Your task to perform on an android device: open app "TextNow: Call + Text Unlimited" (install if not already installed) and enter user name: "stoke@yahoo.com" and password: "prompted" Image 0: 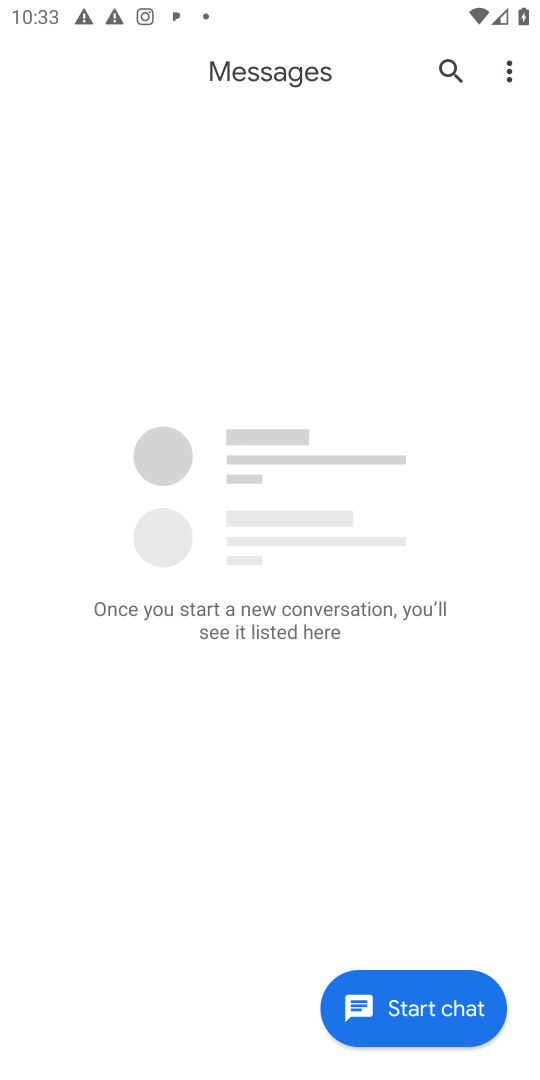
Step 0: press home button
Your task to perform on an android device: open app "TextNow: Call + Text Unlimited" (install if not already installed) and enter user name: "stoke@yahoo.com" and password: "prompted" Image 1: 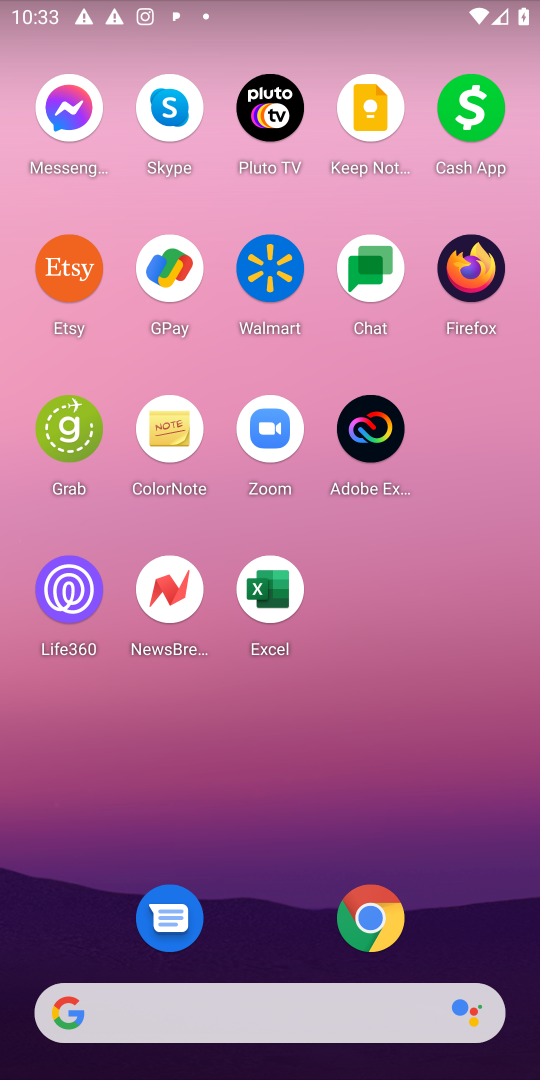
Step 1: press home button
Your task to perform on an android device: open app "TextNow: Call + Text Unlimited" (install if not already installed) and enter user name: "stoke@yahoo.com" and password: "prompted" Image 2: 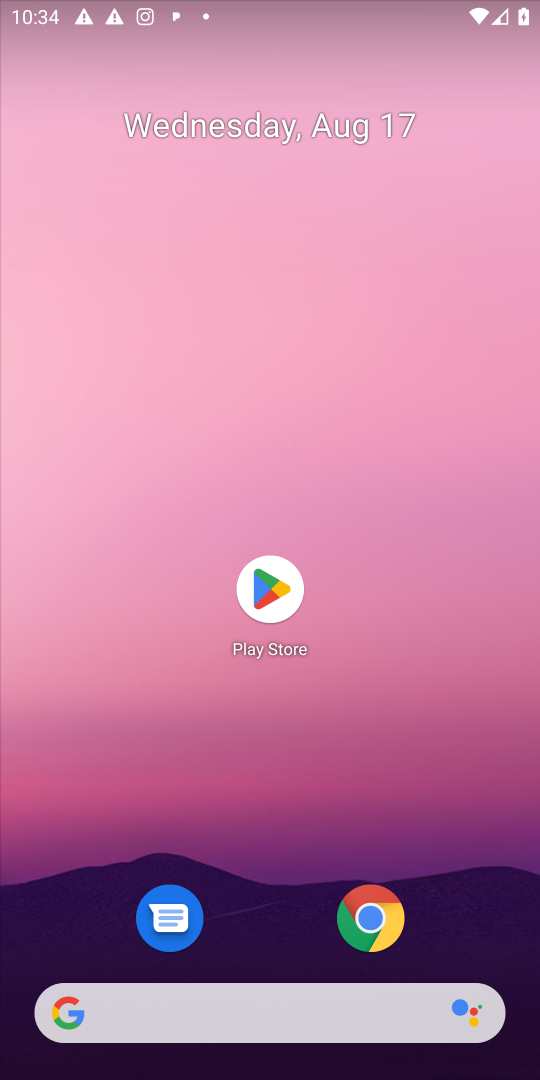
Step 2: click (259, 603)
Your task to perform on an android device: open app "TextNow: Call + Text Unlimited" (install if not already installed) and enter user name: "stoke@yahoo.com" and password: "prompted" Image 3: 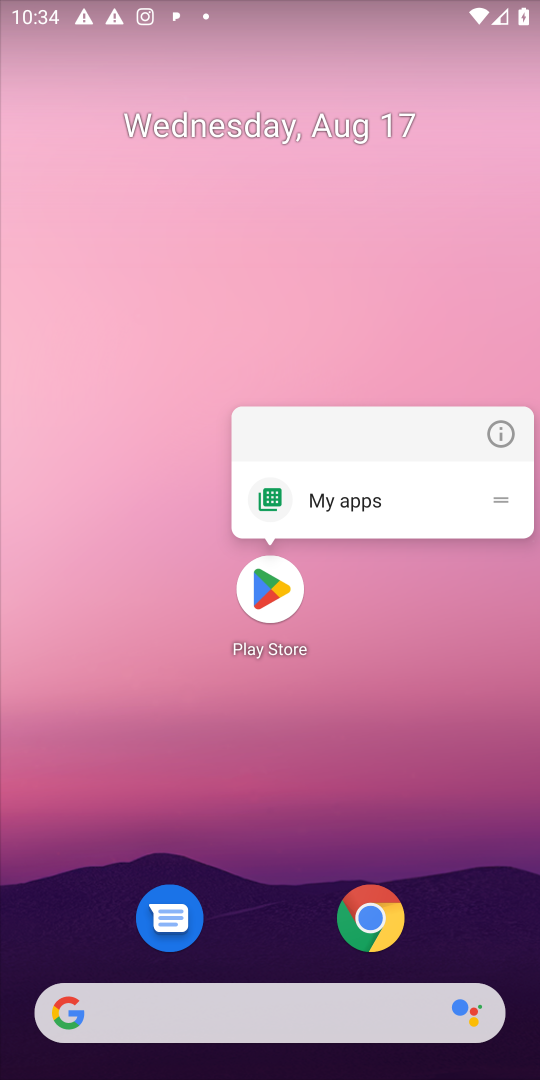
Step 3: click (259, 605)
Your task to perform on an android device: open app "TextNow: Call + Text Unlimited" (install if not already installed) and enter user name: "stoke@yahoo.com" and password: "prompted" Image 4: 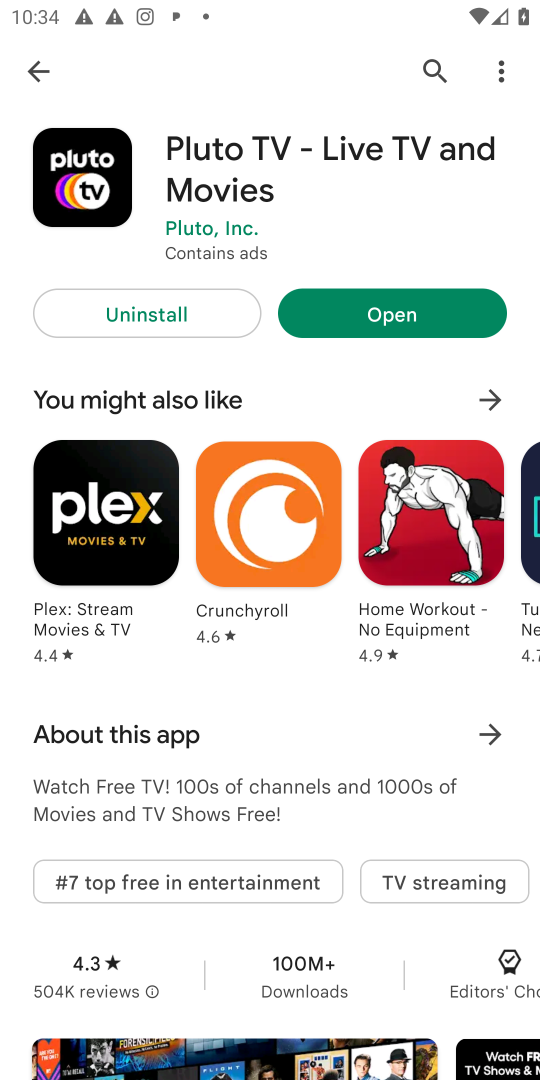
Step 4: click (424, 61)
Your task to perform on an android device: open app "TextNow: Call + Text Unlimited" (install if not already installed) and enter user name: "stoke@yahoo.com" and password: "prompted" Image 5: 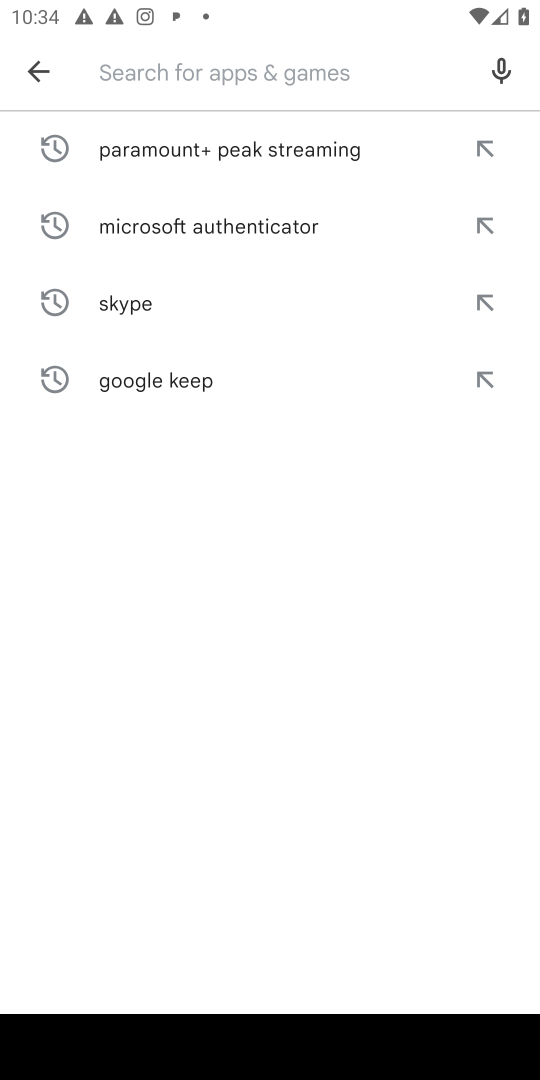
Step 5: type "TextNow: Call + Text Unlimited"
Your task to perform on an android device: open app "TextNow: Call + Text Unlimited" (install if not already installed) and enter user name: "stoke@yahoo.com" and password: "prompted" Image 6: 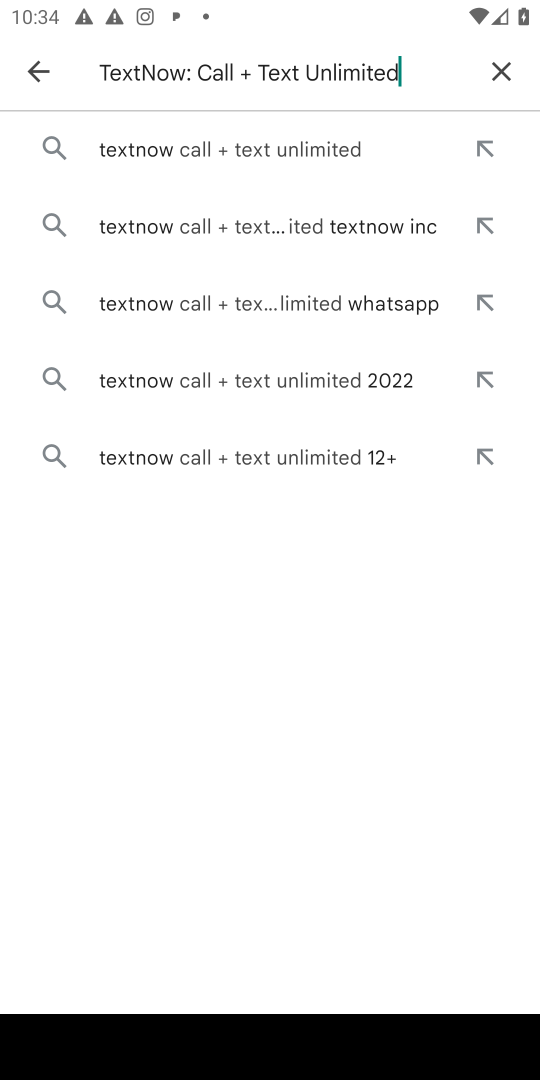
Step 6: click (320, 145)
Your task to perform on an android device: open app "TextNow: Call + Text Unlimited" (install if not already installed) and enter user name: "stoke@yahoo.com" and password: "prompted" Image 7: 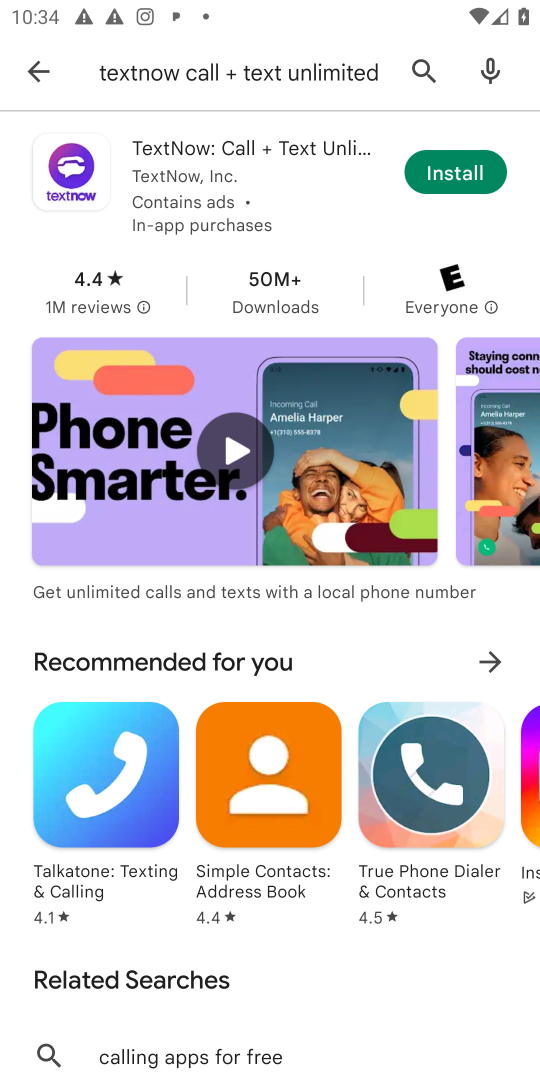
Step 7: click (429, 160)
Your task to perform on an android device: open app "TextNow: Call + Text Unlimited" (install if not already installed) and enter user name: "stoke@yahoo.com" and password: "prompted" Image 8: 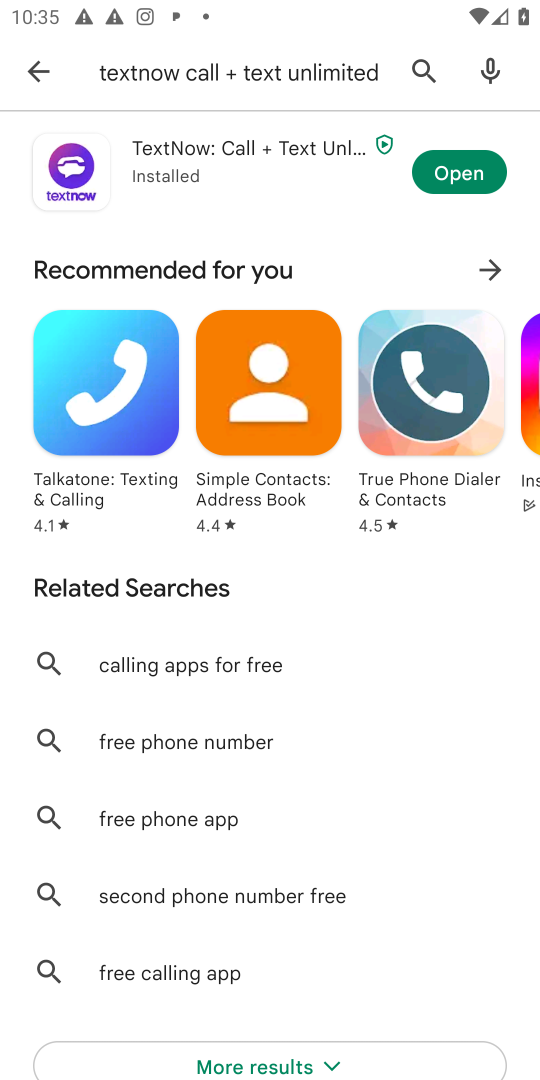
Step 8: click (446, 166)
Your task to perform on an android device: open app "TextNow: Call + Text Unlimited" (install if not already installed) and enter user name: "stoke@yahoo.com" and password: "prompted" Image 9: 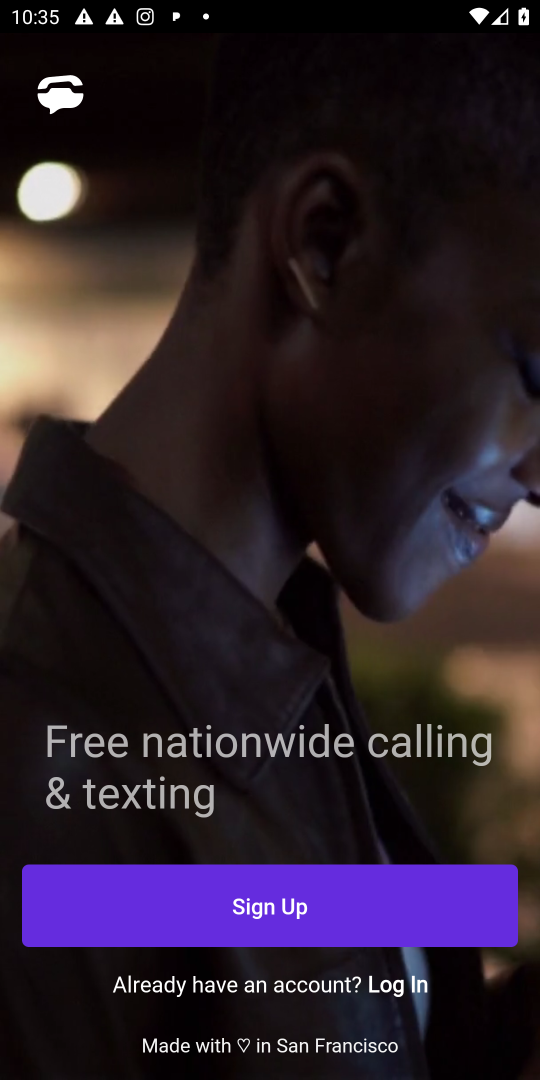
Step 9: click (398, 989)
Your task to perform on an android device: open app "TextNow: Call + Text Unlimited" (install if not already installed) and enter user name: "stoke@yahoo.com" and password: "prompted" Image 10: 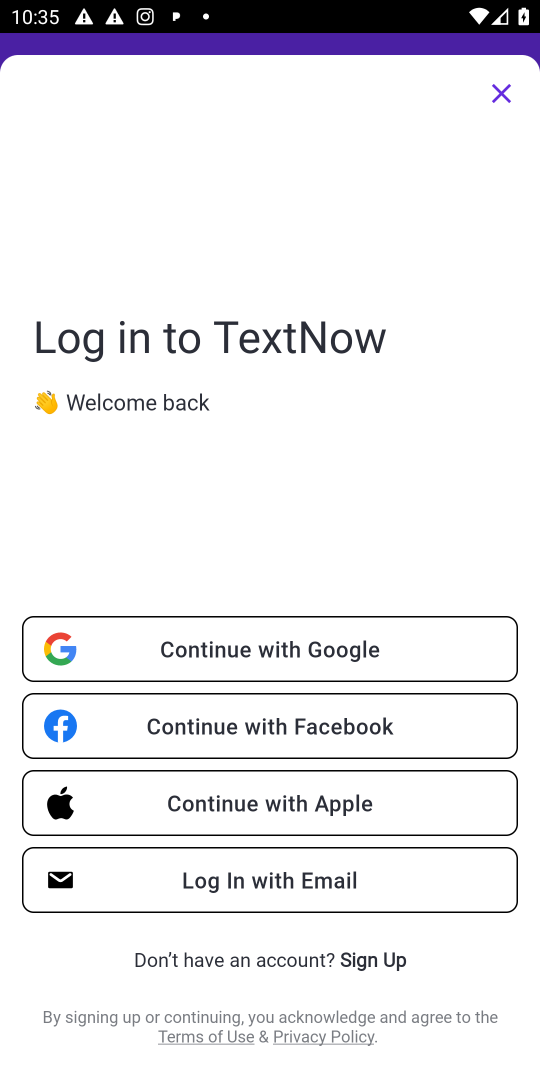
Step 10: click (281, 884)
Your task to perform on an android device: open app "TextNow: Call + Text Unlimited" (install if not already installed) and enter user name: "stoke@yahoo.com" and password: "prompted" Image 11: 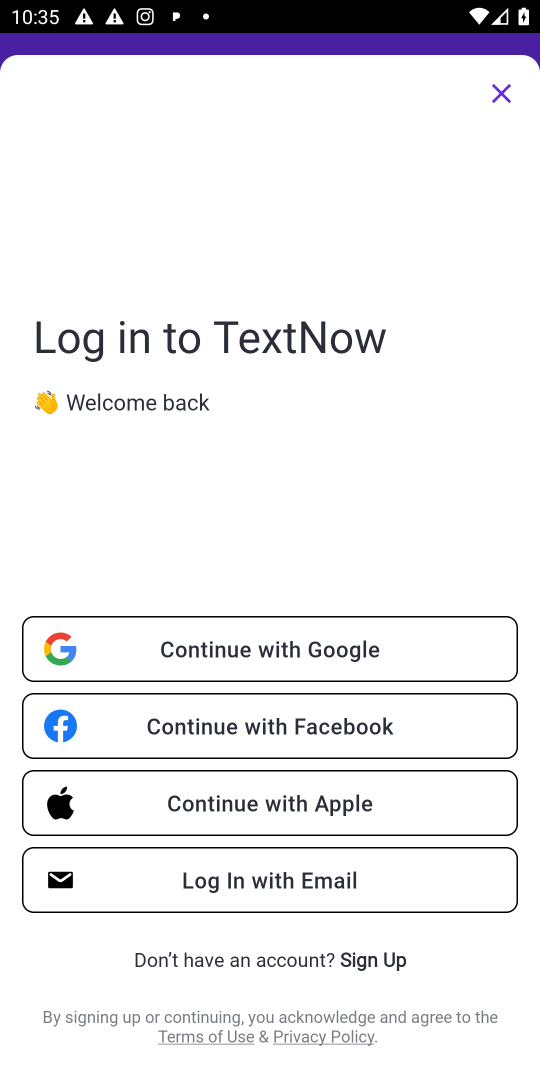
Step 11: click (288, 878)
Your task to perform on an android device: open app "TextNow: Call + Text Unlimited" (install if not already installed) and enter user name: "stoke@yahoo.com" and password: "prompted" Image 12: 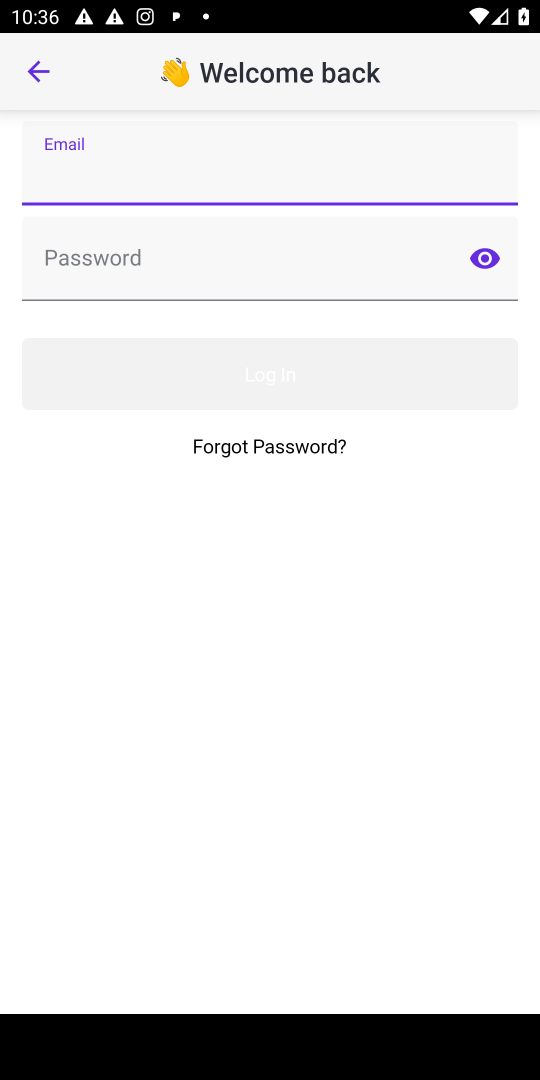
Step 12: type "stoke@yahoo.com"
Your task to perform on an android device: open app "TextNow: Call + Text Unlimited" (install if not already installed) and enter user name: "stoke@yahoo.com" and password: "prompted" Image 13: 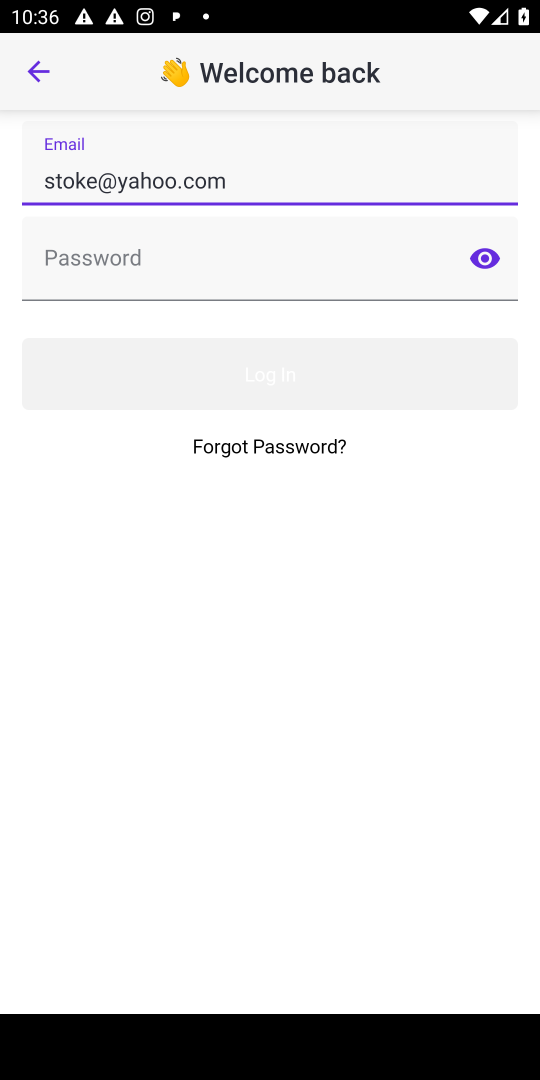
Step 13: click (188, 271)
Your task to perform on an android device: open app "TextNow: Call + Text Unlimited" (install if not already installed) and enter user name: "stoke@yahoo.com" and password: "prompted" Image 14: 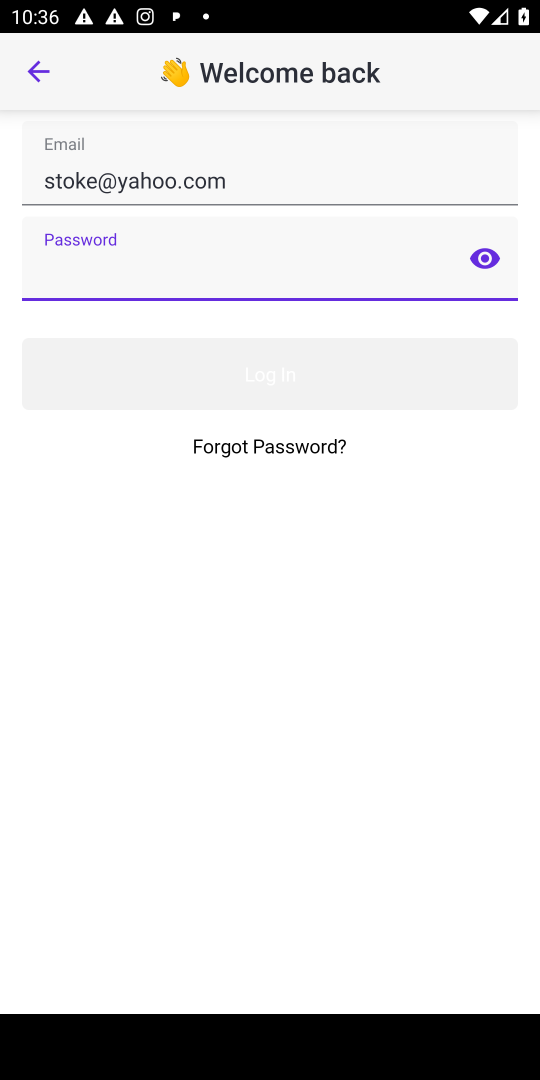
Step 14: type "prompted"
Your task to perform on an android device: open app "TextNow: Call + Text Unlimited" (install if not already installed) and enter user name: "stoke@yahoo.com" and password: "prompted" Image 15: 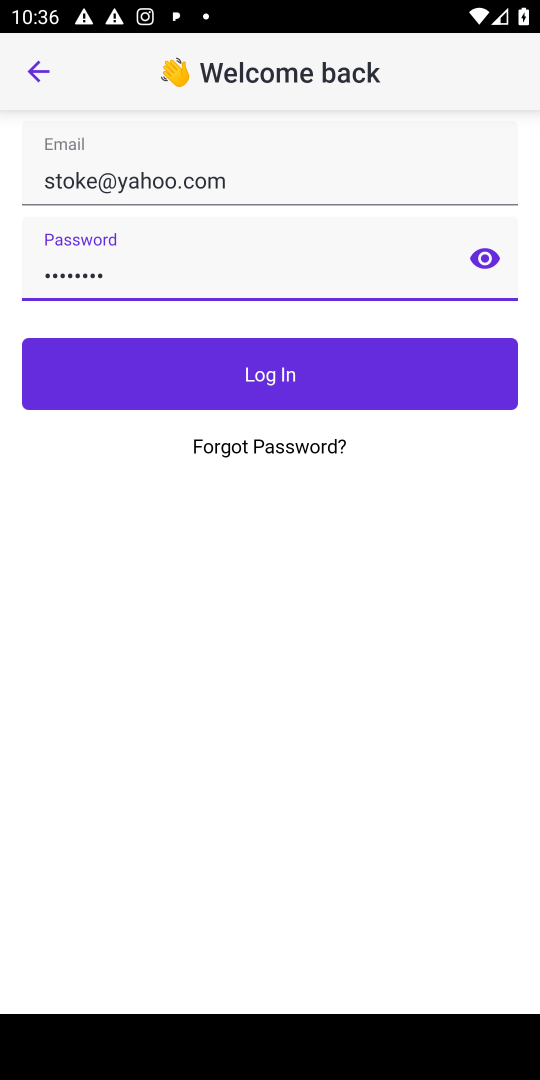
Step 15: task complete